Your task to perform on an android device: turn pop-ups off in chrome Image 0: 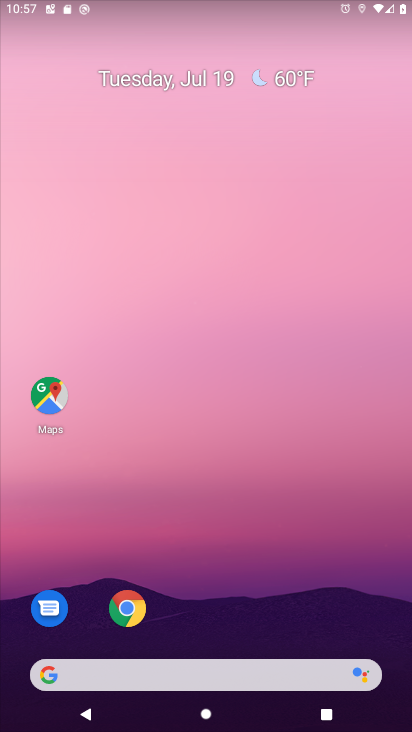
Step 0: click (128, 609)
Your task to perform on an android device: turn pop-ups off in chrome Image 1: 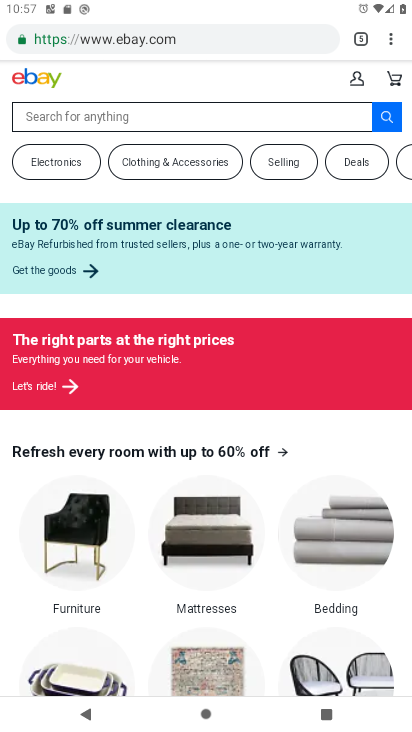
Step 1: click (395, 29)
Your task to perform on an android device: turn pop-ups off in chrome Image 2: 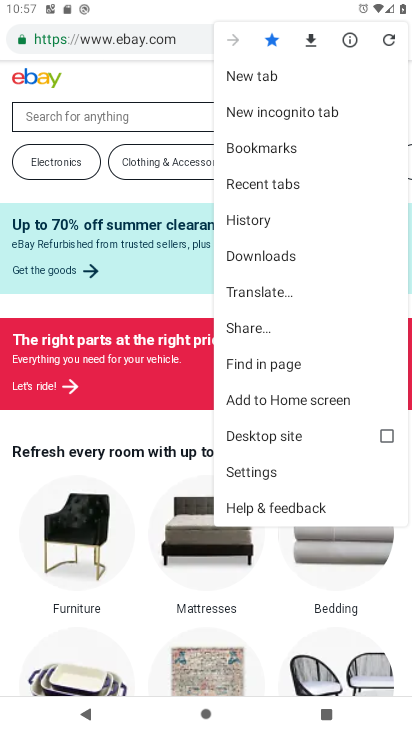
Step 2: click (273, 467)
Your task to perform on an android device: turn pop-ups off in chrome Image 3: 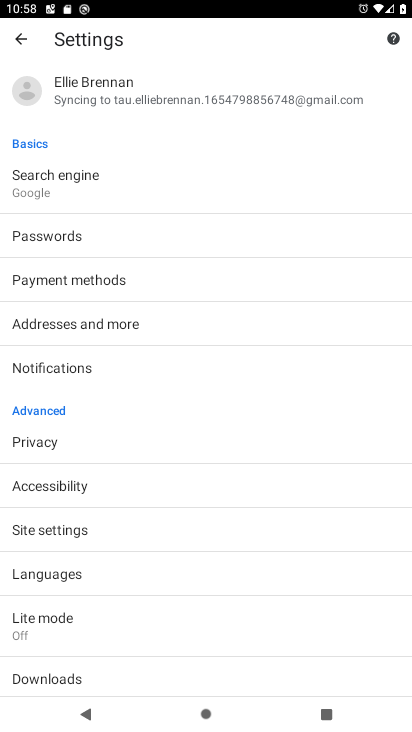
Step 3: click (45, 536)
Your task to perform on an android device: turn pop-ups off in chrome Image 4: 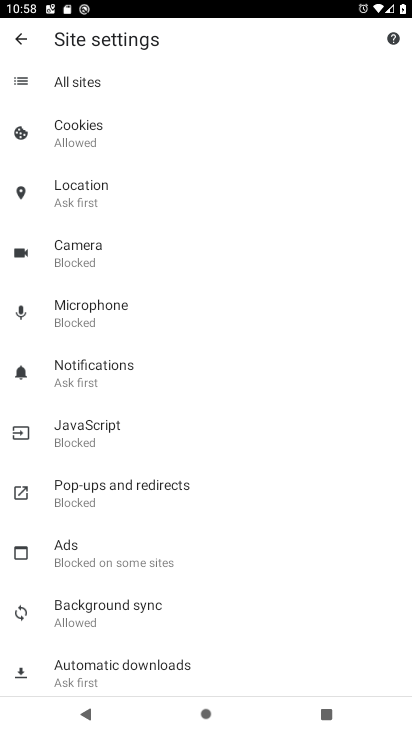
Step 4: click (96, 495)
Your task to perform on an android device: turn pop-ups off in chrome Image 5: 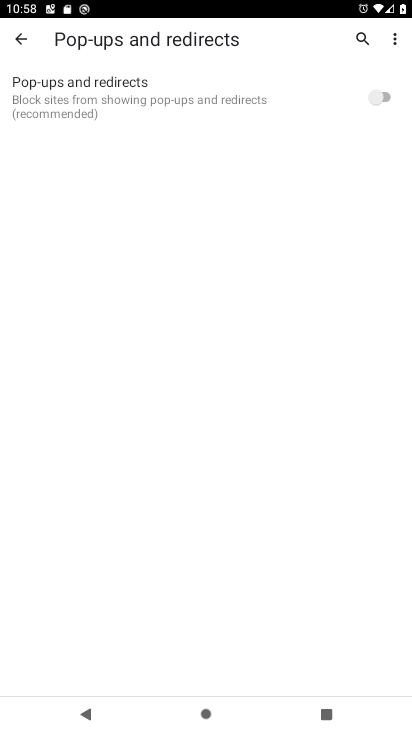
Step 5: task complete